Your task to perform on an android device: open app "Messages" (install if not already installed), go to login, and select forgot password Image 0: 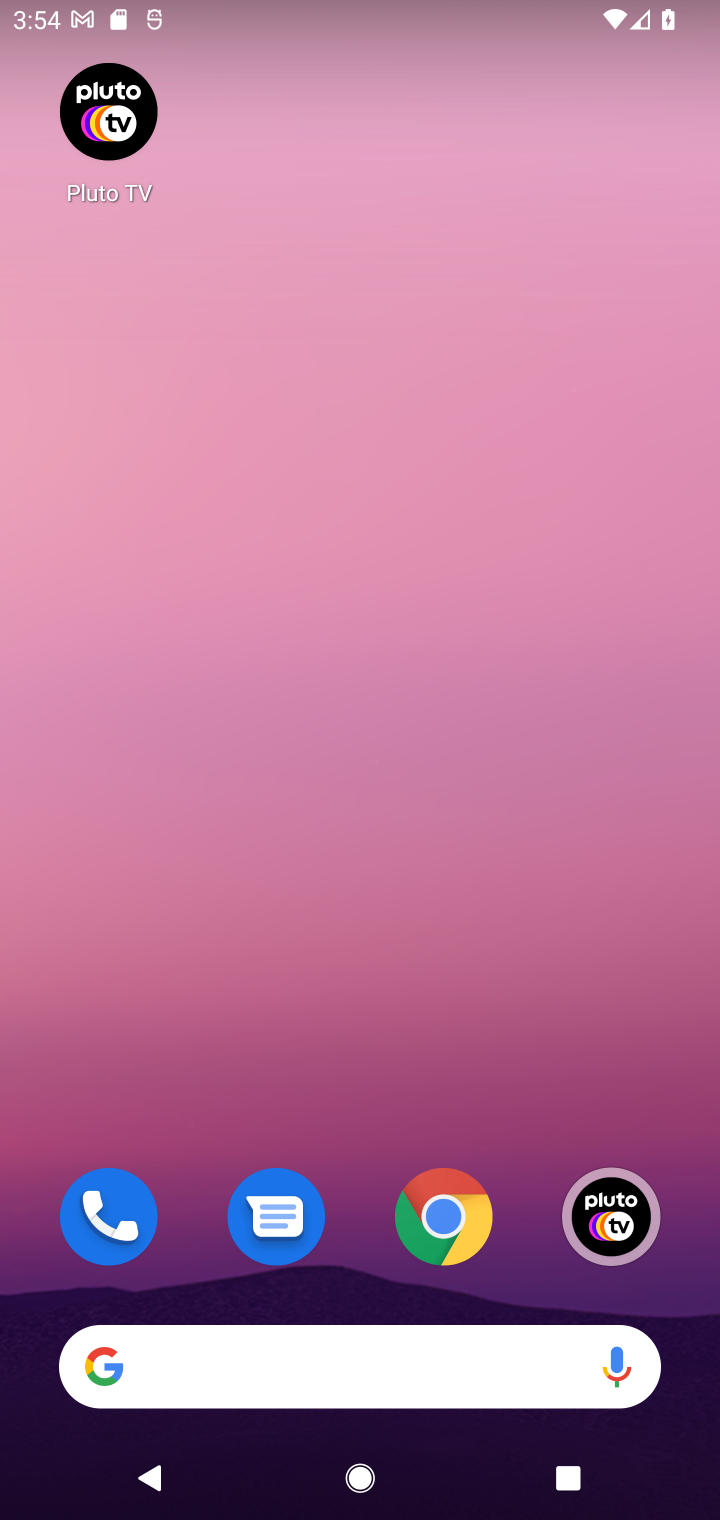
Step 0: drag from (414, 1106) to (430, 187)
Your task to perform on an android device: open app "Messages" (install if not already installed), go to login, and select forgot password Image 1: 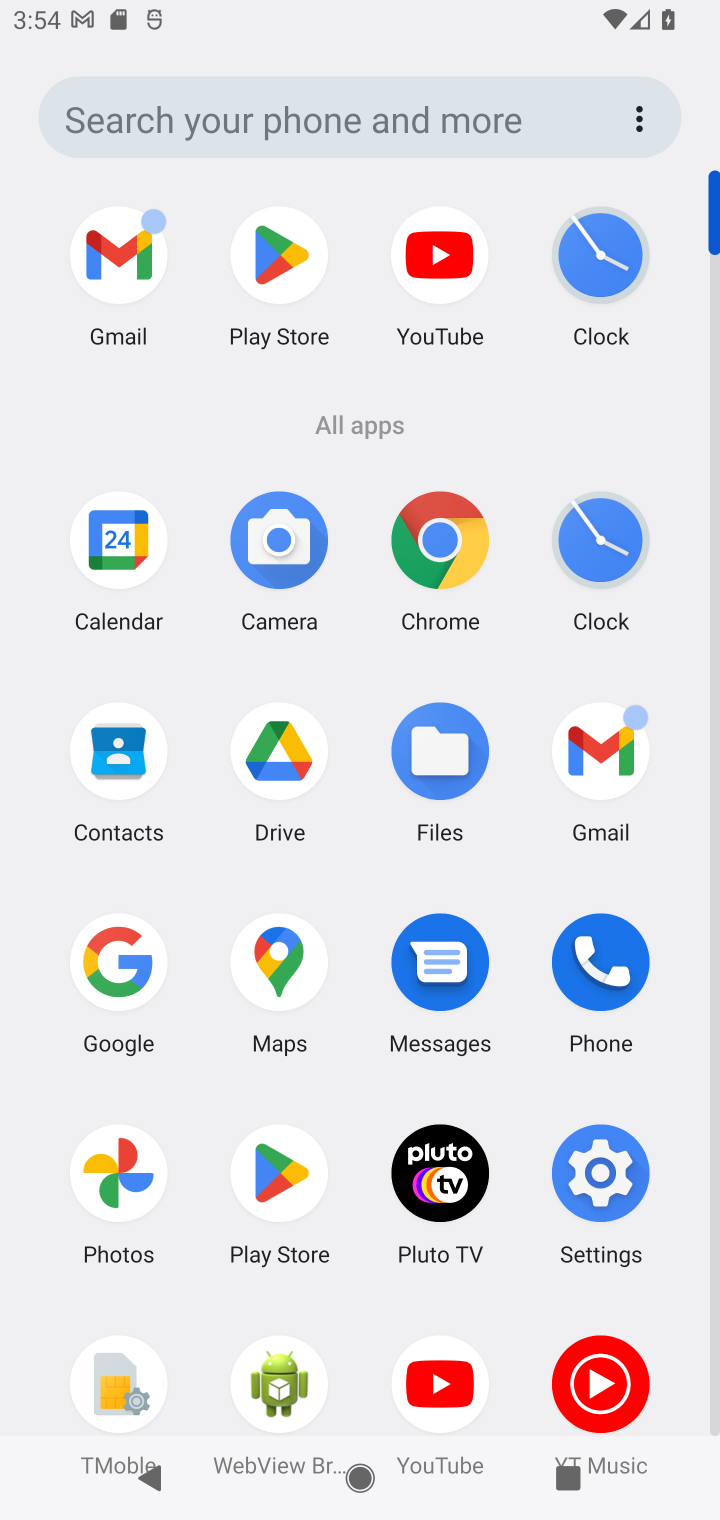
Step 1: click (308, 246)
Your task to perform on an android device: open app "Messages" (install if not already installed), go to login, and select forgot password Image 2: 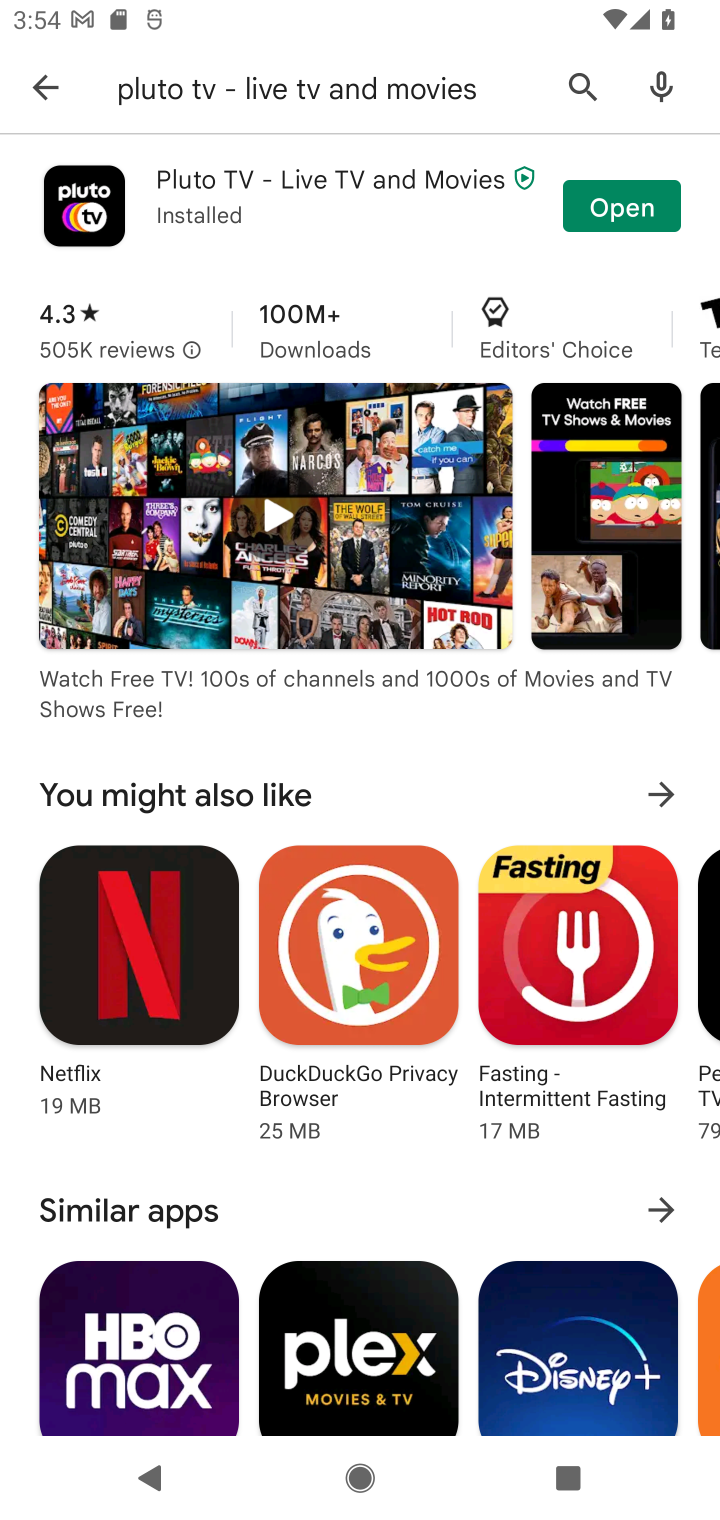
Step 2: click (582, 83)
Your task to perform on an android device: open app "Messages" (install if not already installed), go to login, and select forgot password Image 3: 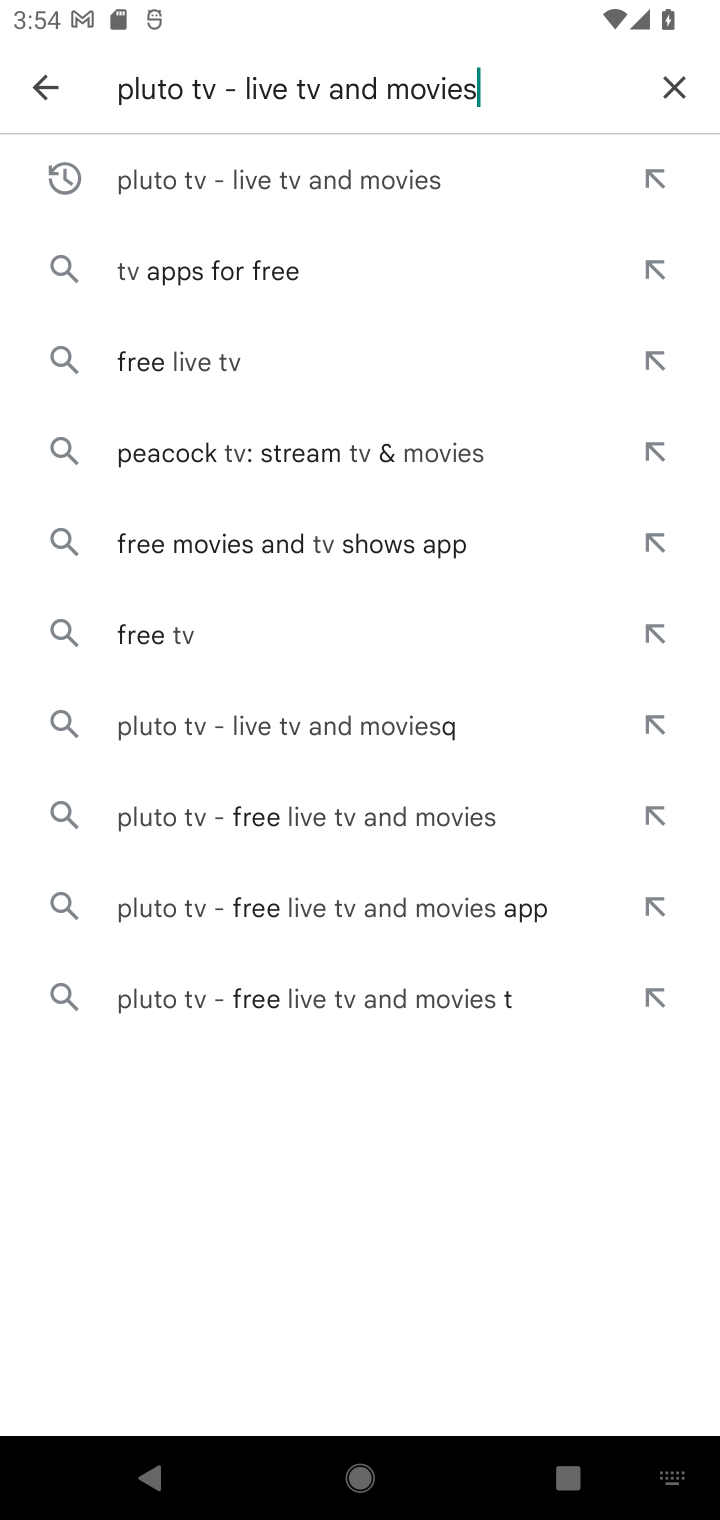
Step 3: click (650, 86)
Your task to perform on an android device: open app "Messages" (install if not already installed), go to login, and select forgot password Image 4: 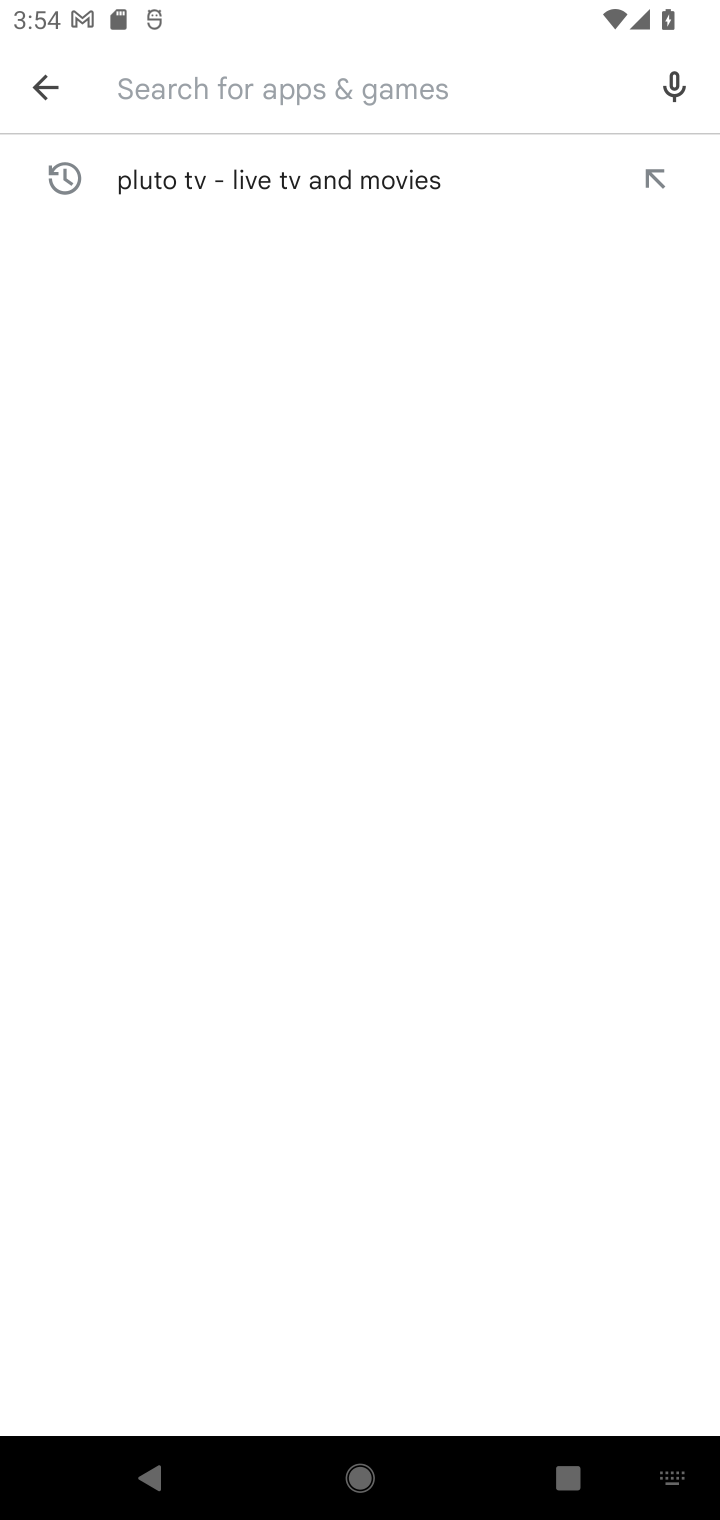
Step 4: type "Messages"
Your task to perform on an android device: open app "Messages" (install if not already installed), go to login, and select forgot password Image 5: 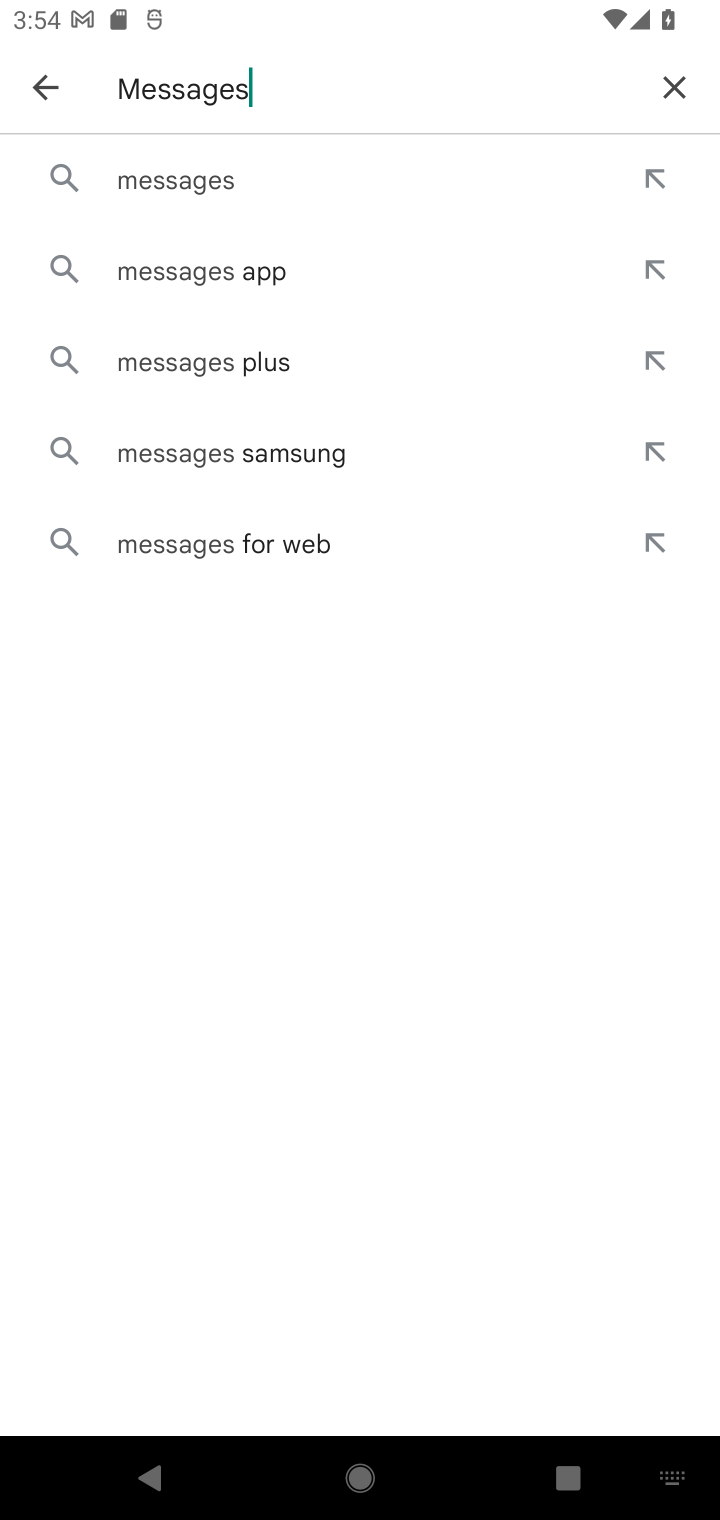
Step 5: click (243, 183)
Your task to perform on an android device: open app "Messages" (install if not already installed), go to login, and select forgot password Image 6: 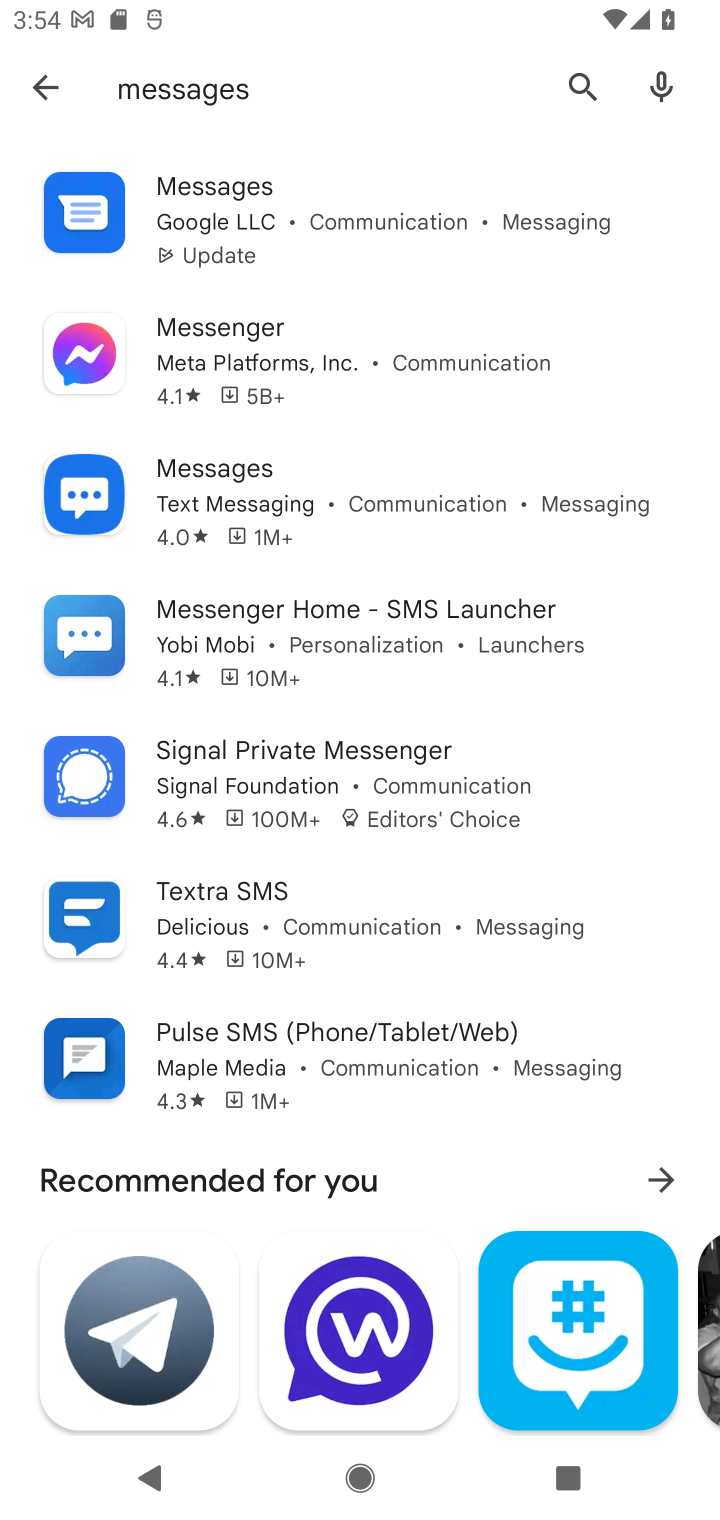
Step 6: click (292, 237)
Your task to perform on an android device: open app "Messages" (install if not already installed), go to login, and select forgot password Image 7: 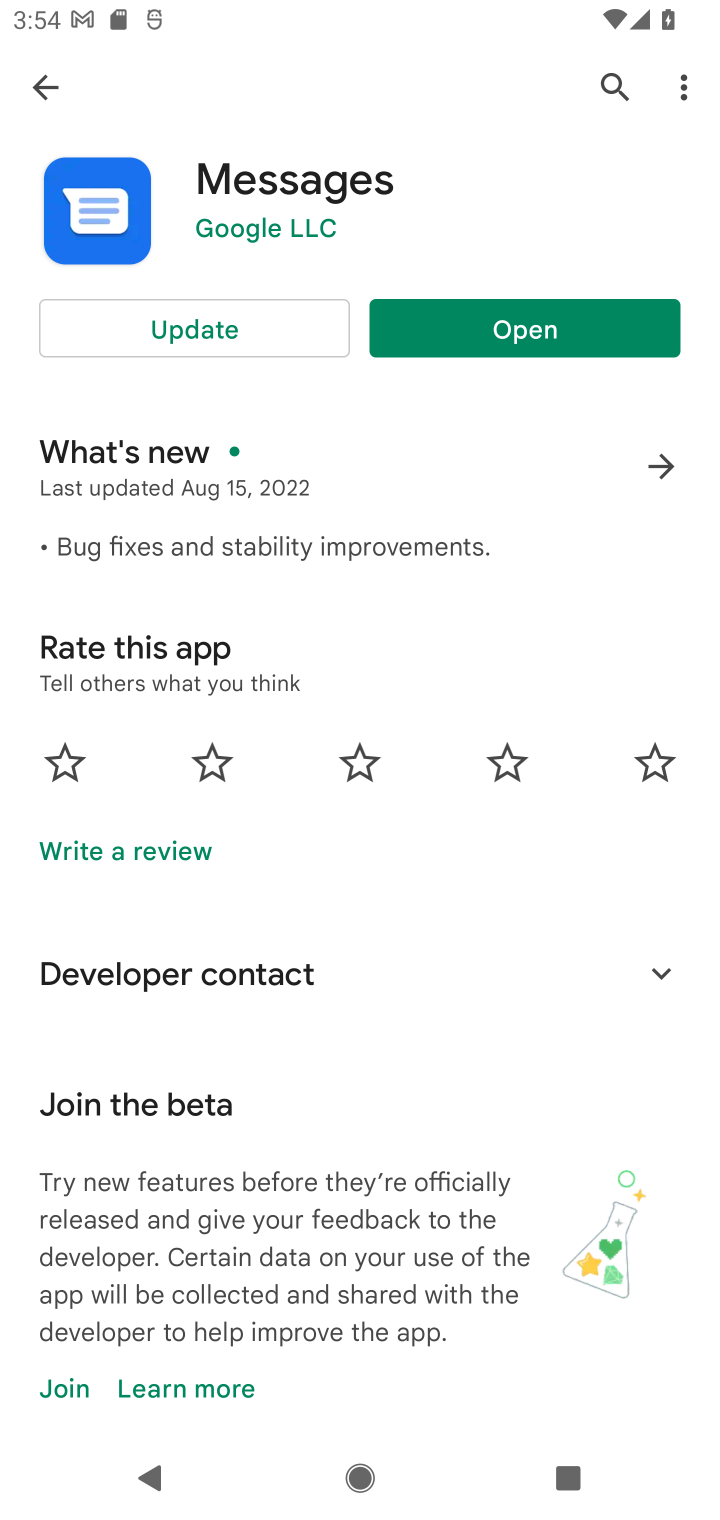
Step 7: click (412, 307)
Your task to perform on an android device: open app "Messages" (install if not already installed), go to login, and select forgot password Image 8: 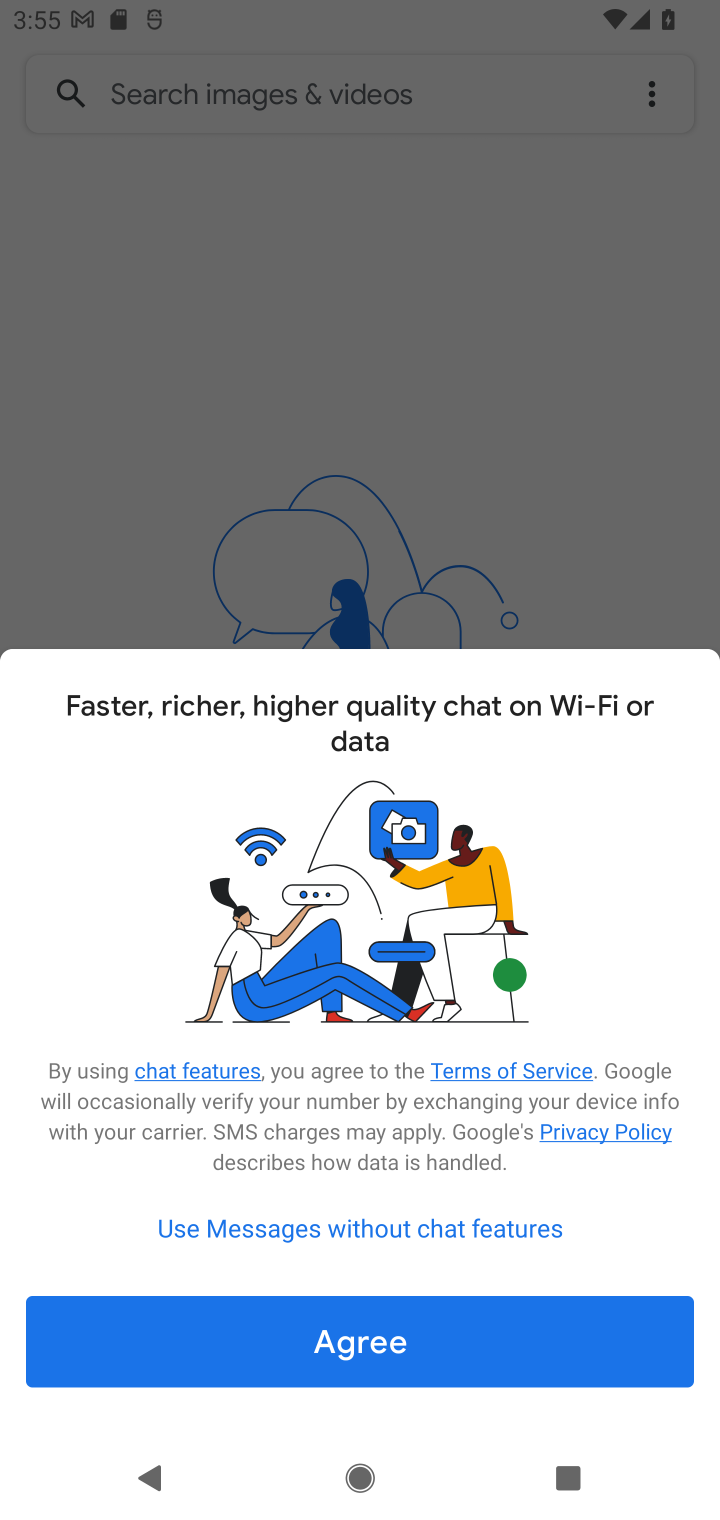
Step 8: task complete